Your task to perform on an android device: turn on the 24-hour format for clock Image 0: 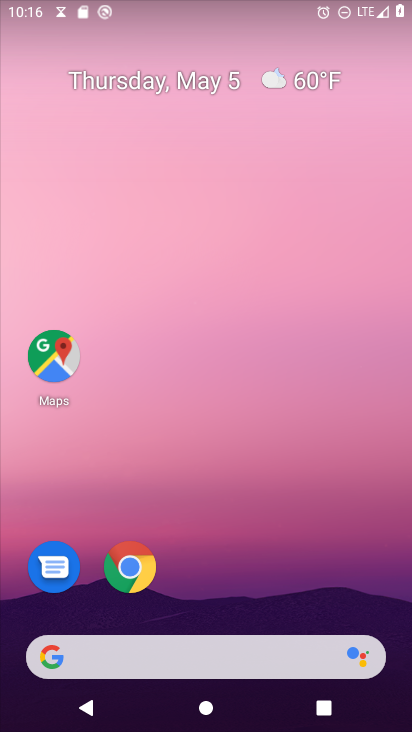
Step 0: drag from (230, 729) to (230, 174)
Your task to perform on an android device: turn on the 24-hour format for clock Image 1: 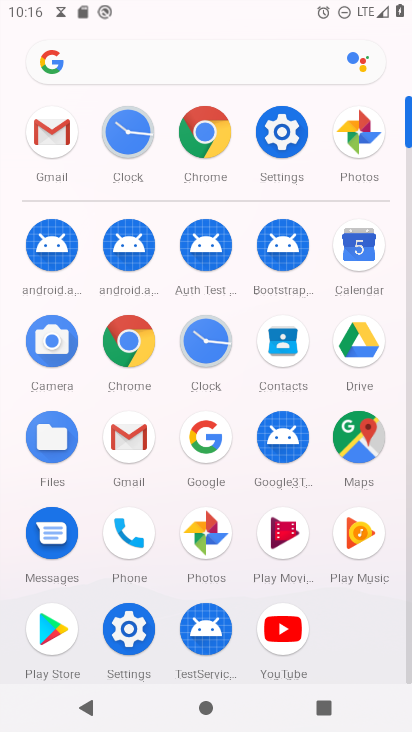
Step 1: click (211, 341)
Your task to perform on an android device: turn on the 24-hour format for clock Image 2: 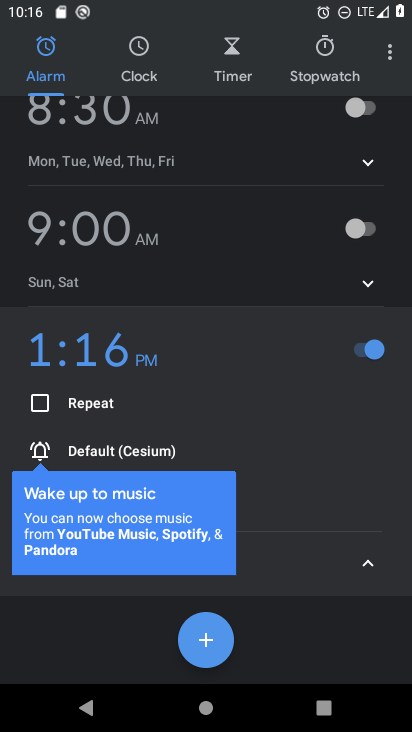
Step 2: click (390, 52)
Your task to perform on an android device: turn on the 24-hour format for clock Image 3: 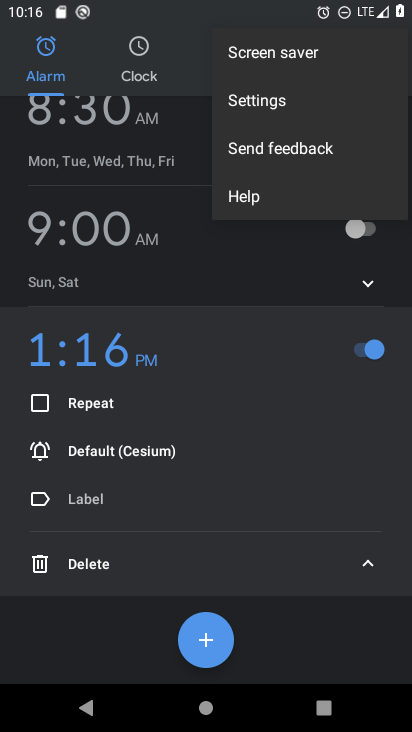
Step 3: click (258, 104)
Your task to perform on an android device: turn on the 24-hour format for clock Image 4: 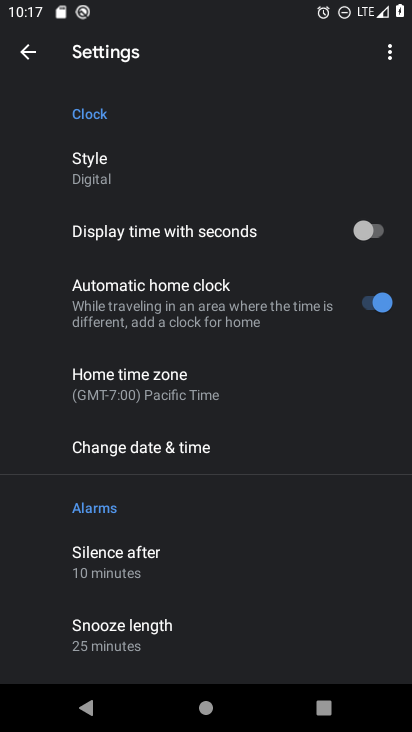
Step 4: drag from (181, 513) to (181, 410)
Your task to perform on an android device: turn on the 24-hour format for clock Image 5: 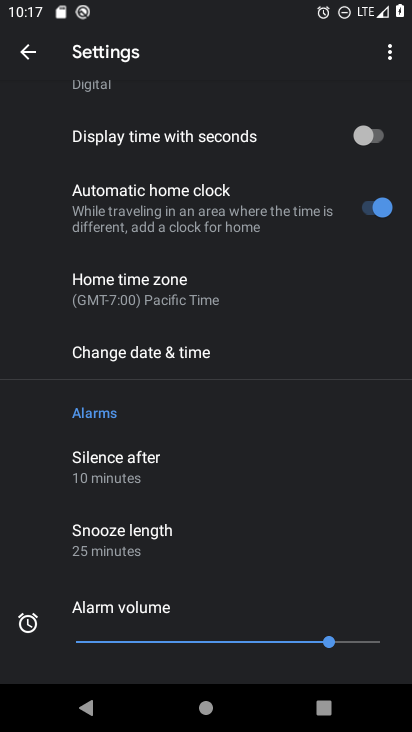
Step 5: click (148, 352)
Your task to perform on an android device: turn on the 24-hour format for clock Image 6: 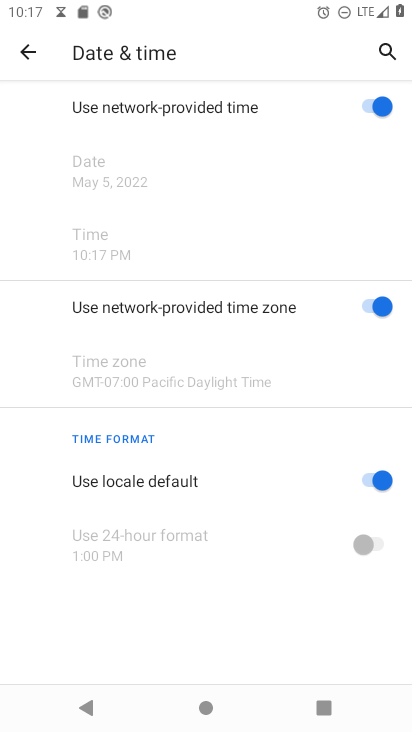
Step 6: click (363, 477)
Your task to perform on an android device: turn on the 24-hour format for clock Image 7: 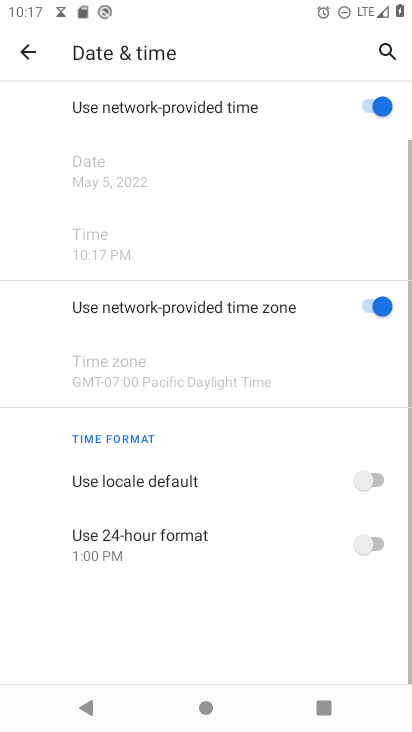
Step 7: click (377, 544)
Your task to perform on an android device: turn on the 24-hour format for clock Image 8: 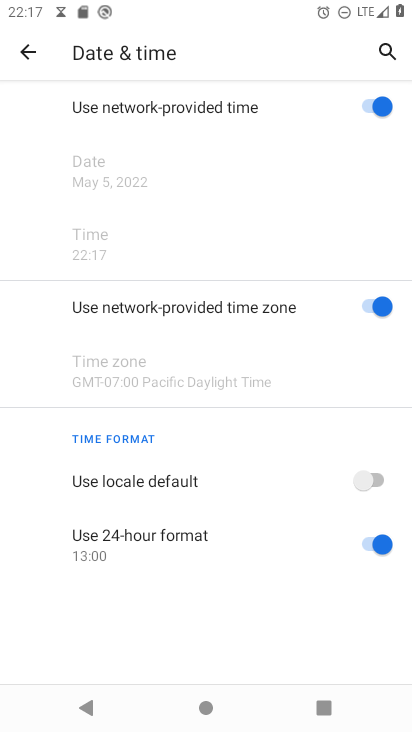
Step 8: task complete